Your task to perform on an android device: find snoozed emails in the gmail app Image 0: 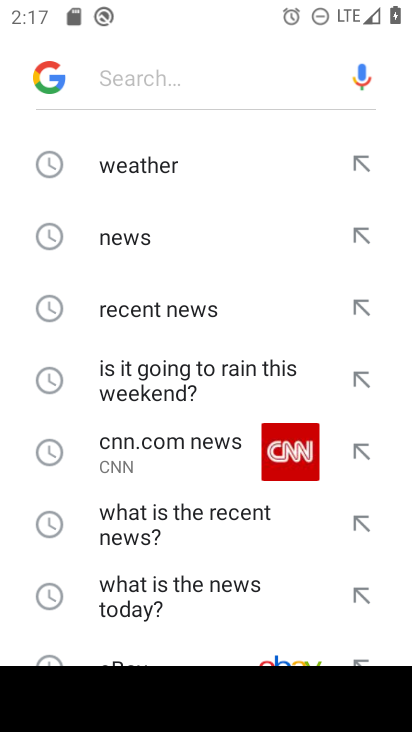
Step 0: press home button
Your task to perform on an android device: find snoozed emails in the gmail app Image 1: 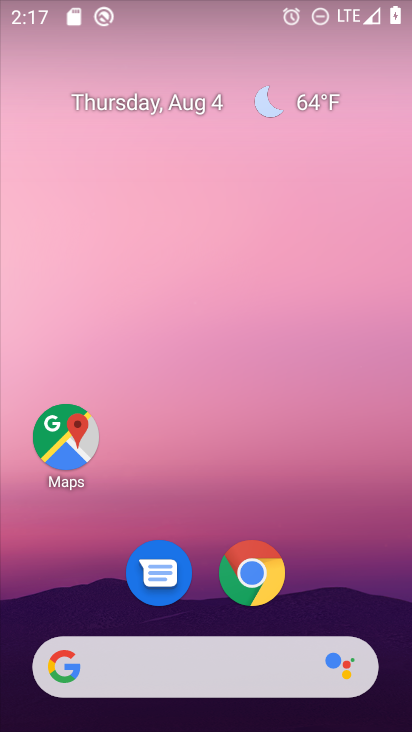
Step 1: drag from (376, 603) to (375, 101)
Your task to perform on an android device: find snoozed emails in the gmail app Image 2: 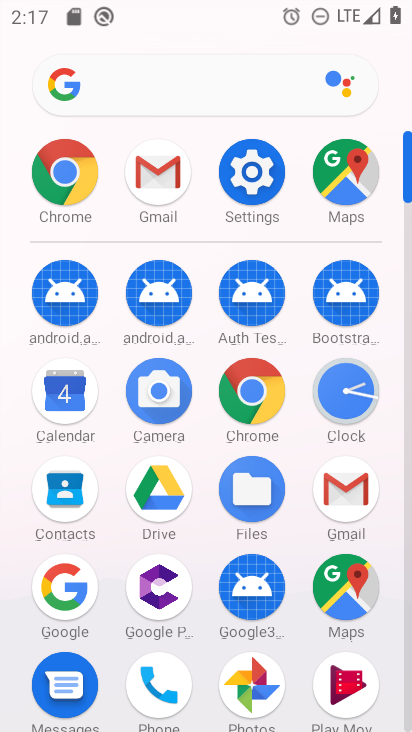
Step 2: click (361, 485)
Your task to perform on an android device: find snoozed emails in the gmail app Image 3: 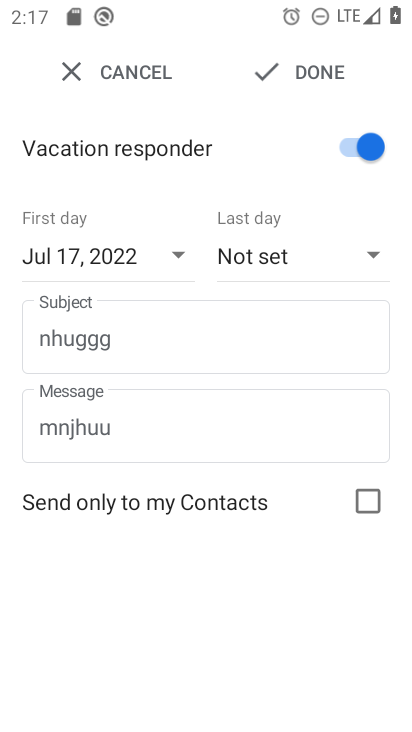
Step 3: click (51, 72)
Your task to perform on an android device: find snoozed emails in the gmail app Image 4: 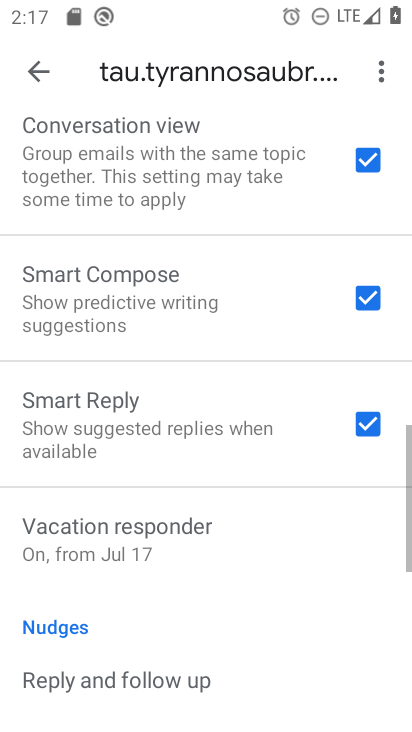
Step 4: click (39, 69)
Your task to perform on an android device: find snoozed emails in the gmail app Image 5: 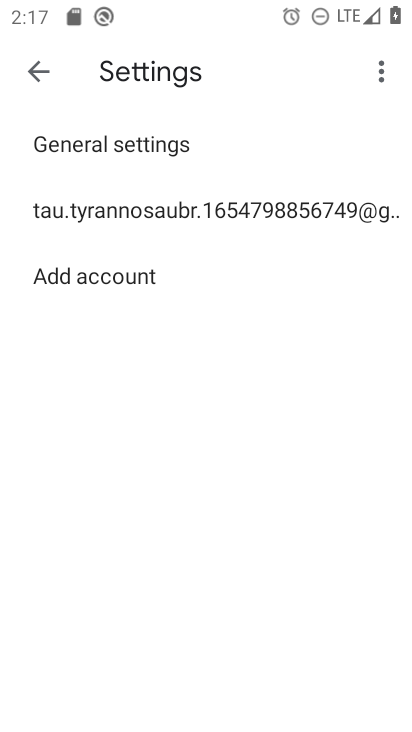
Step 5: click (39, 69)
Your task to perform on an android device: find snoozed emails in the gmail app Image 6: 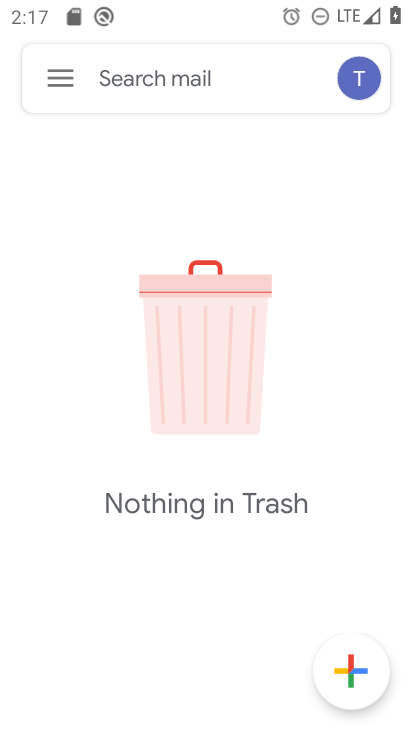
Step 6: click (39, 69)
Your task to perform on an android device: find snoozed emails in the gmail app Image 7: 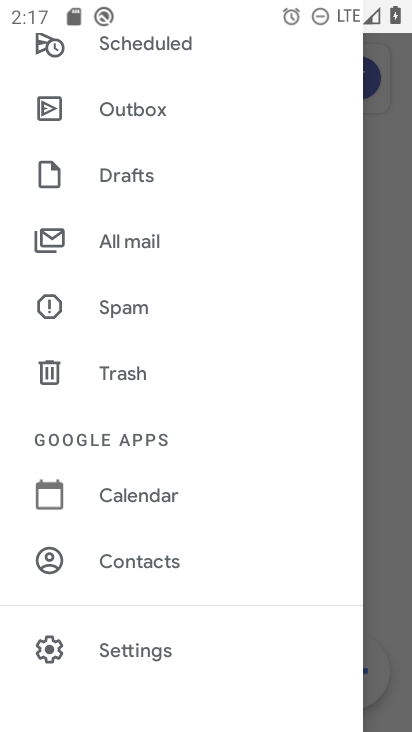
Step 7: drag from (148, 134) to (186, 690)
Your task to perform on an android device: find snoozed emails in the gmail app Image 8: 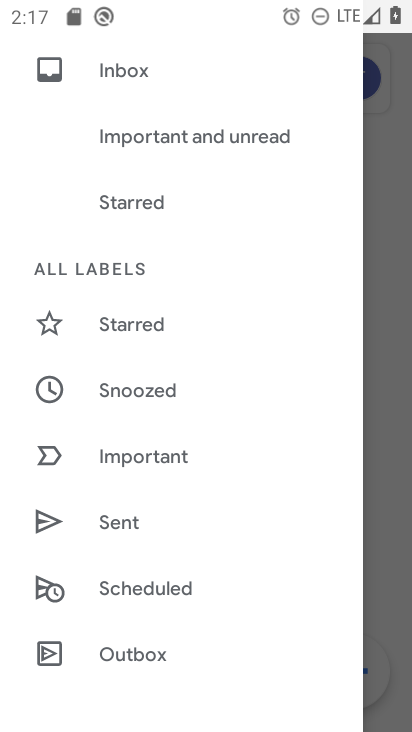
Step 8: click (178, 385)
Your task to perform on an android device: find snoozed emails in the gmail app Image 9: 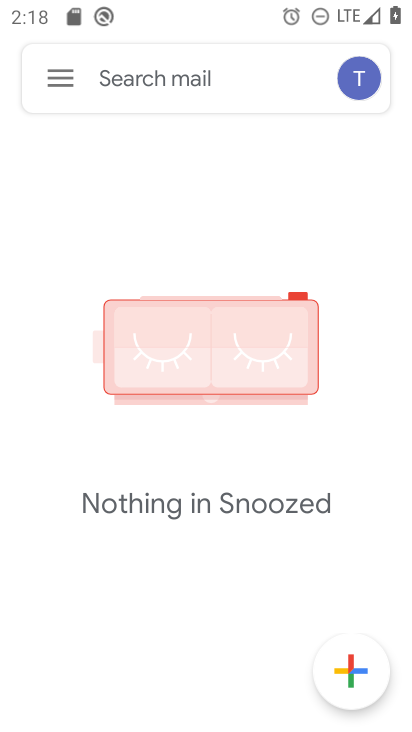
Step 9: task complete